Your task to perform on an android device: turn on priority inbox in the gmail app Image 0: 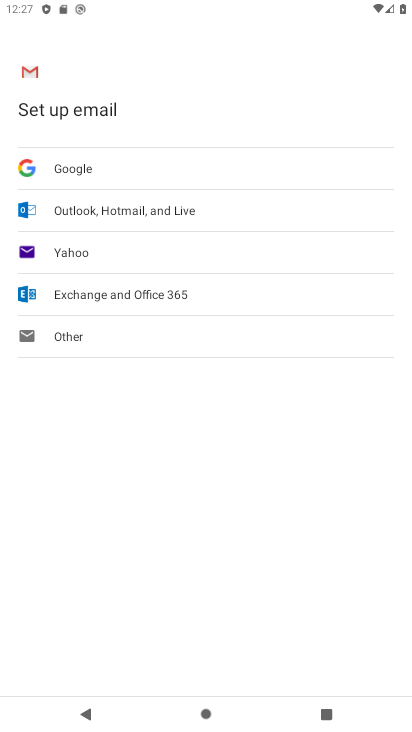
Step 0: press home button
Your task to perform on an android device: turn on priority inbox in the gmail app Image 1: 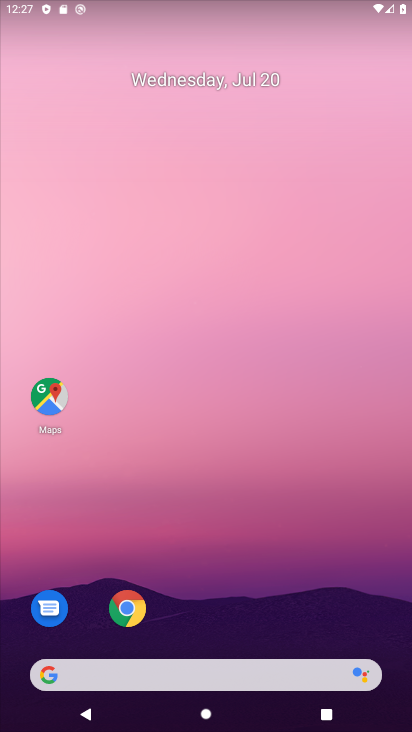
Step 1: drag from (182, 662) to (212, 177)
Your task to perform on an android device: turn on priority inbox in the gmail app Image 2: 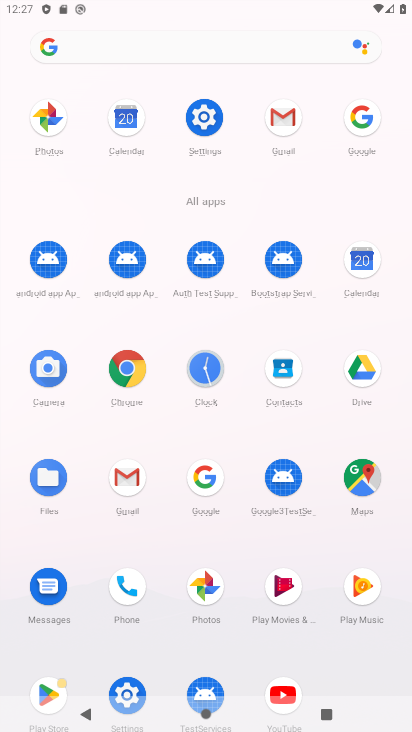
Step 2: click (288, 117)
Your task to perform on an android device: turn on priority inbox in the gmail app Image 3: 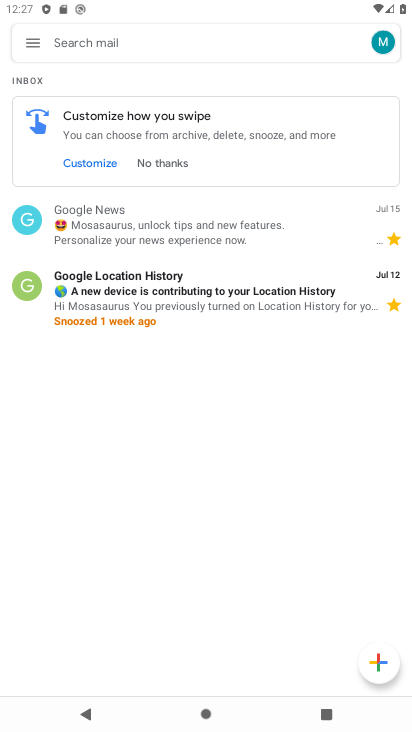
Step 3: click (34, 42)
Your task to perform on an android device: turn on priority inbox in the gmail app Image 4: 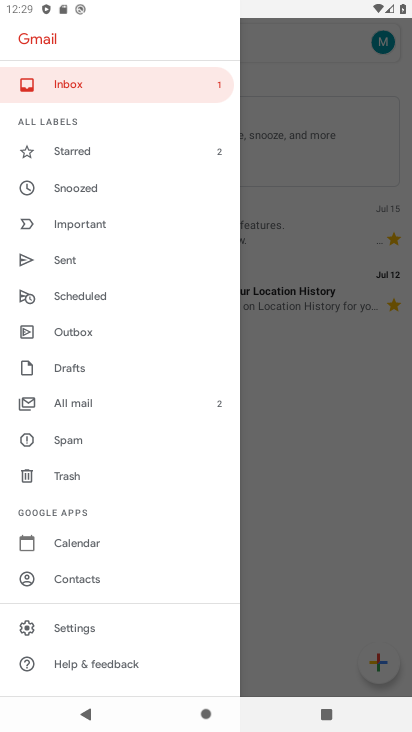
Step 4: click (87, 631)
Your task to perform on an android device: turn on priority inbox in the gmail app Image 5: 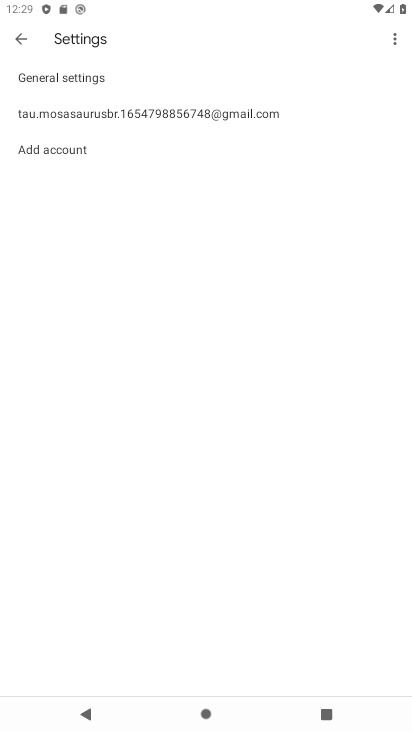
Step 5: click (83, 106)
Your task to perform on an android device: turn on priority inbox in the gmail app Image 6: 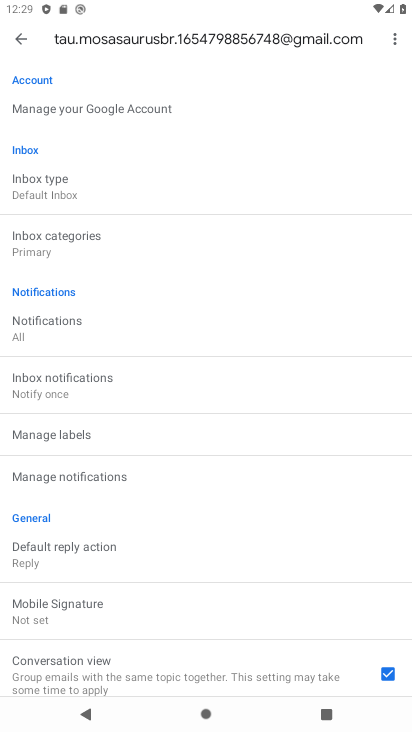
Step 6: click (37, 194)
Your task to perform on an android device: turn on priority inbox in the gmail app Image 7: 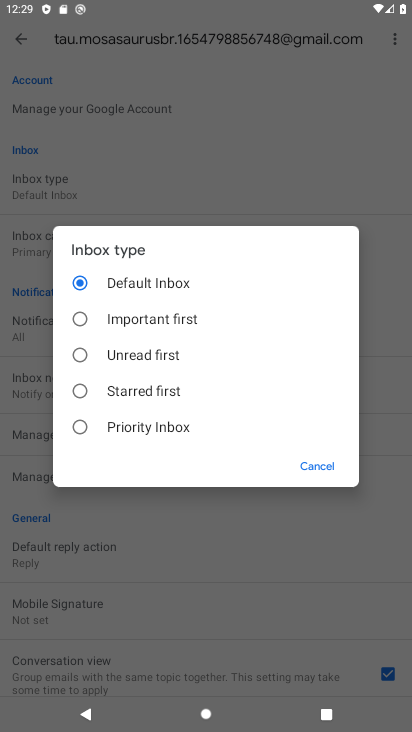
Step 7: click (142, 431)
Your task to perform on an android device: turn on priority inbox in the gmail app Image 8: 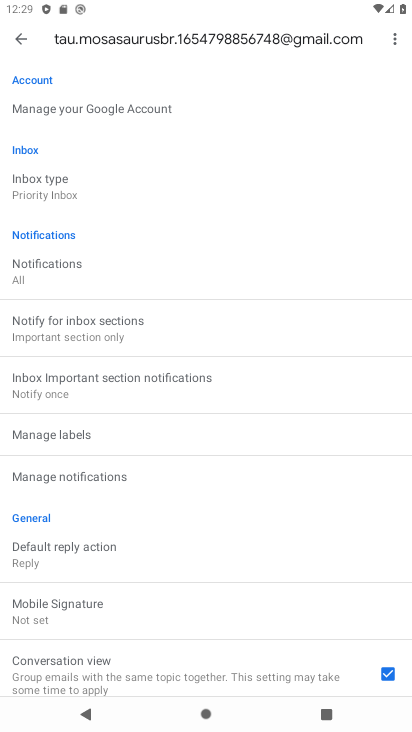
Step 8: task complete